Your task to perform on an android device: open app "McDonald's" (install if not already installed) Image 0: 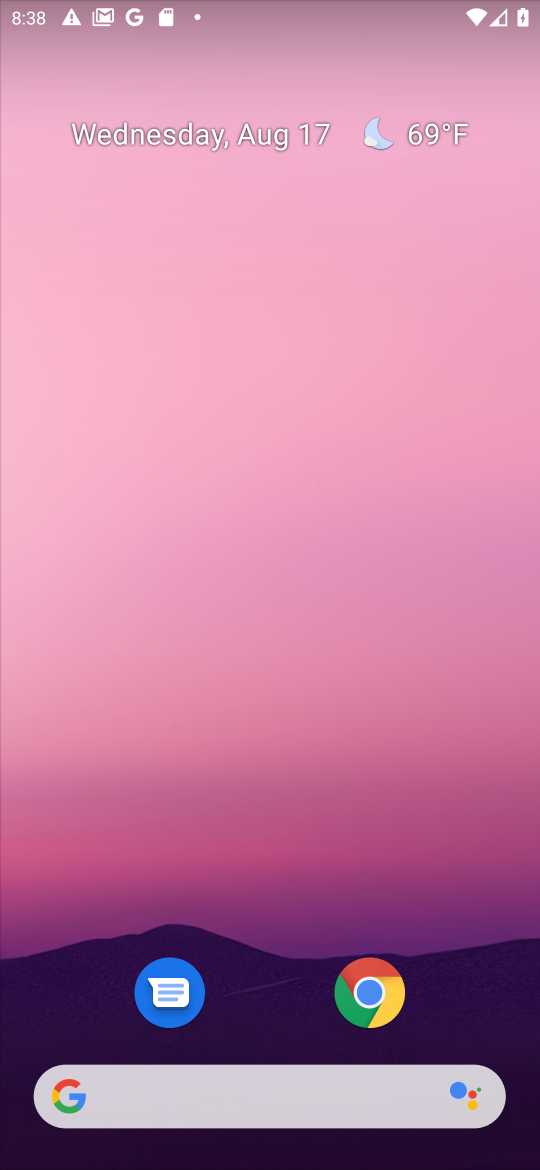
Step 0: drag from (482, 994) to (196, 41)
Your task to perform on an android device: open app "McDonald's" (install if not already installed) Image 1: 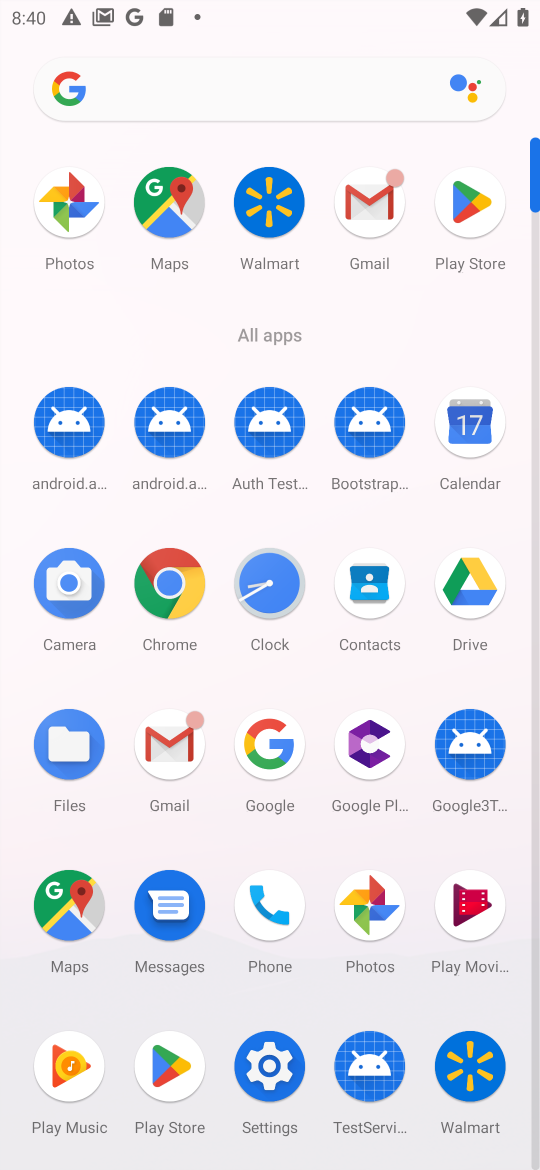
Step 1: click (192, 1083)
Your task to perform on an android device: open app "McDonald's" (install if not already installed) Image 2: 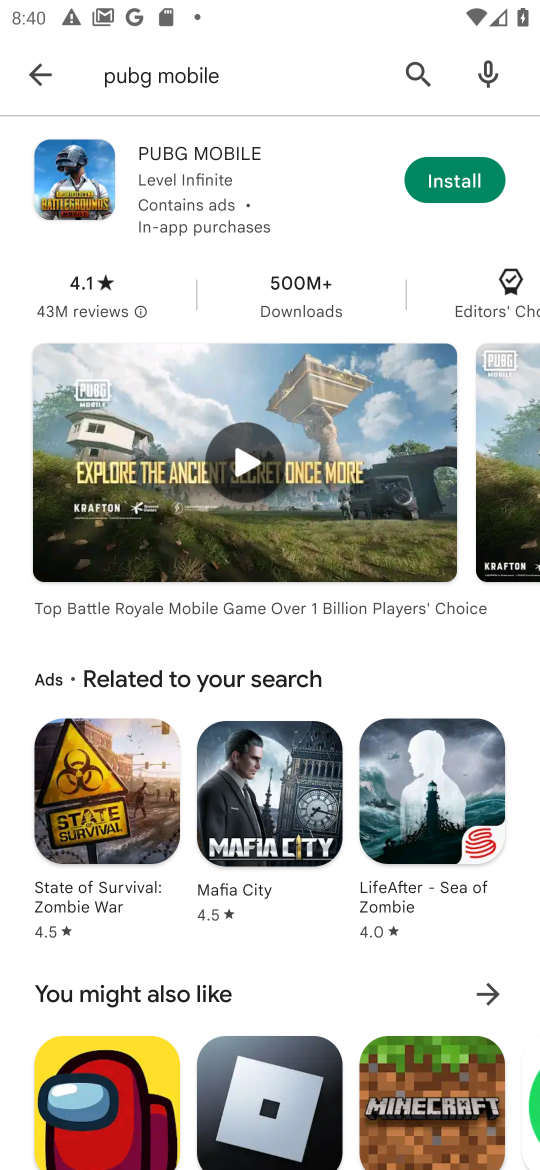
Step 2: press back button
Your task to perform on an android device: open app "McDonald's" (install if not already installed) Image 3: 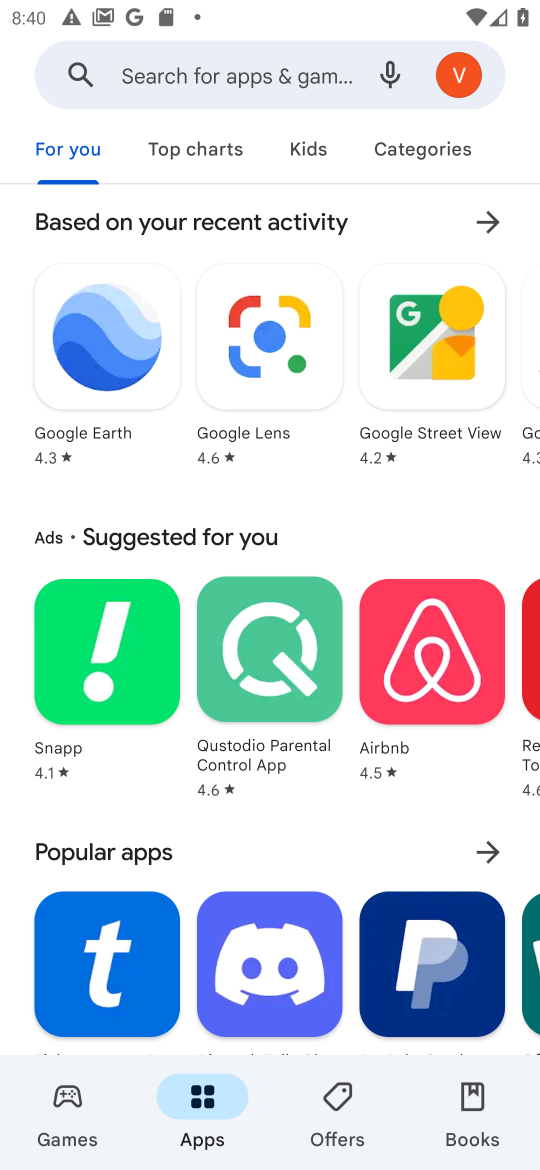
Step 3: click (171, 76)
Your task to perform on an android device: open app "McDonald's" (install if not already installed) Image 4: 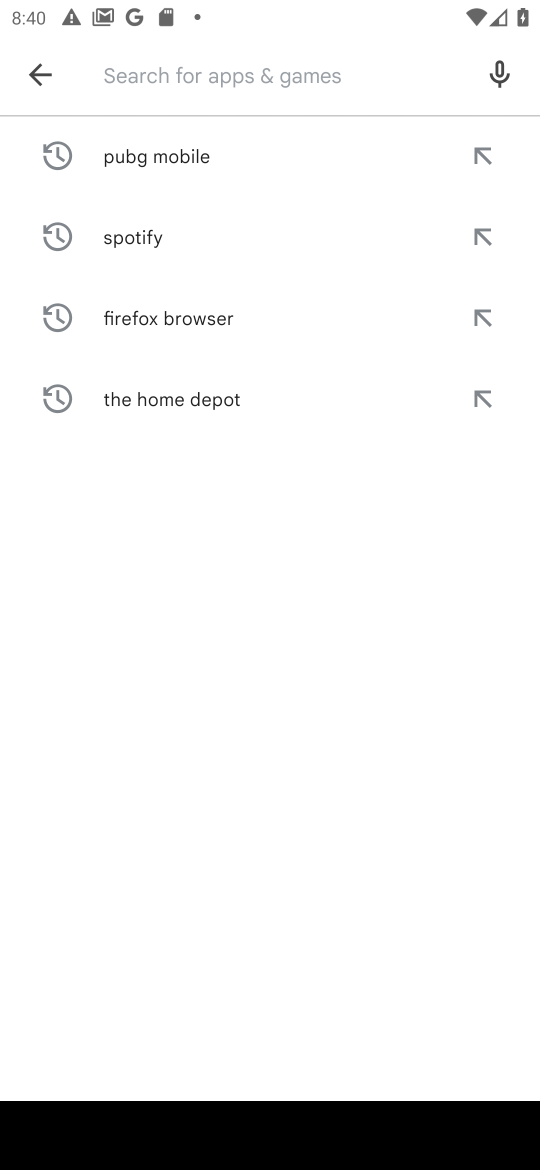
Step 4: type "McDonald's"
Your task to perform on an android device: open app "McDonald's" (install if not already installed) Image 5: 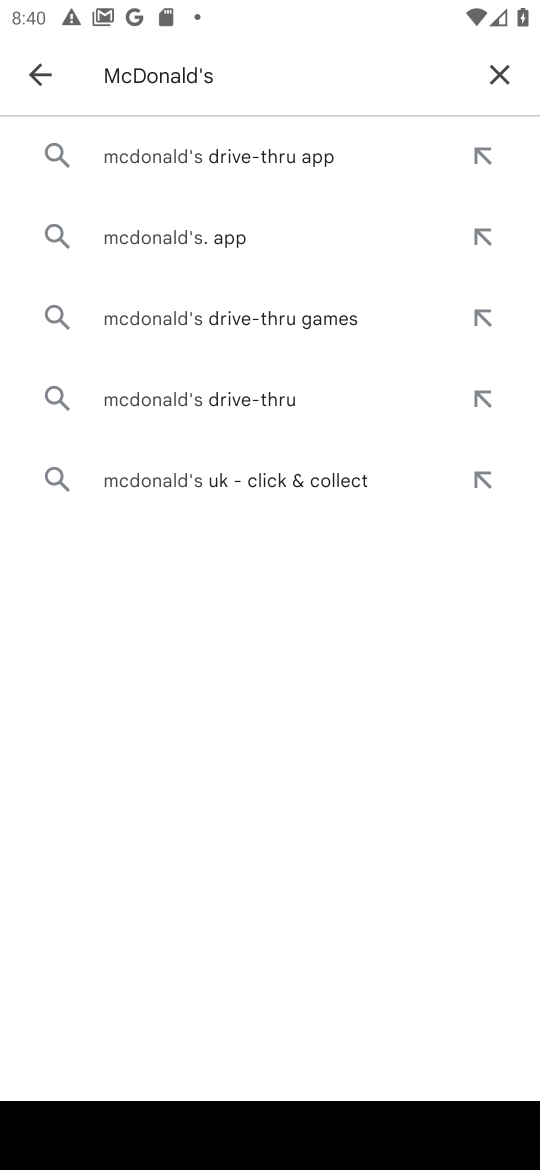
Step 5: click (205, 255)
Your task to perform on an android device: open app "McDonald's" (install if not already installed) Image 6: 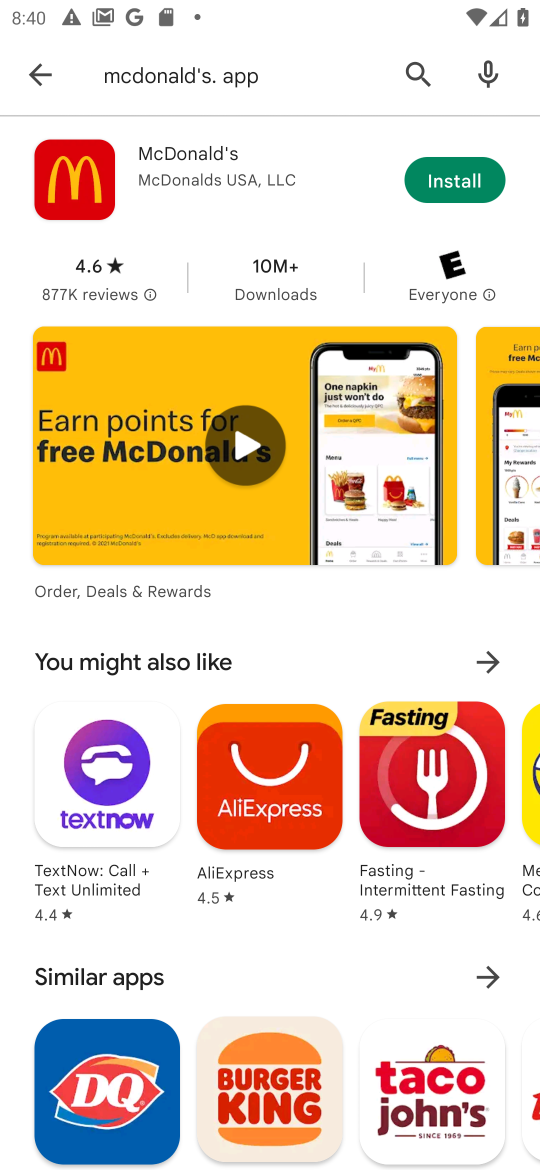
Step 6: task complete